Your task to perform on an android device: turn on the 24-hour format for clock Image 0: 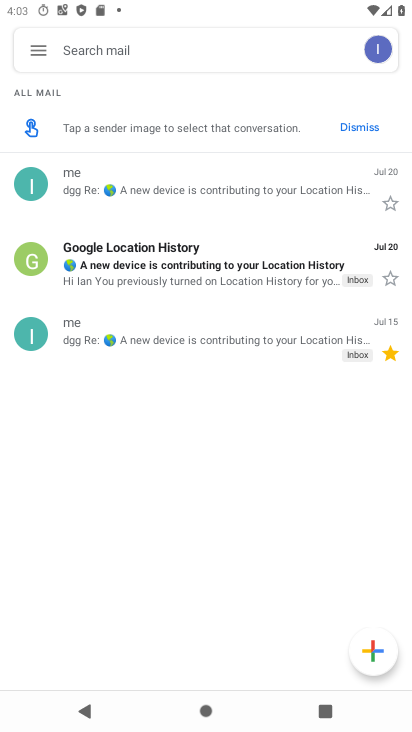
Step 0: press home button
Your task to perform on an android device: turn on the 24-hour format for clock Image 1: 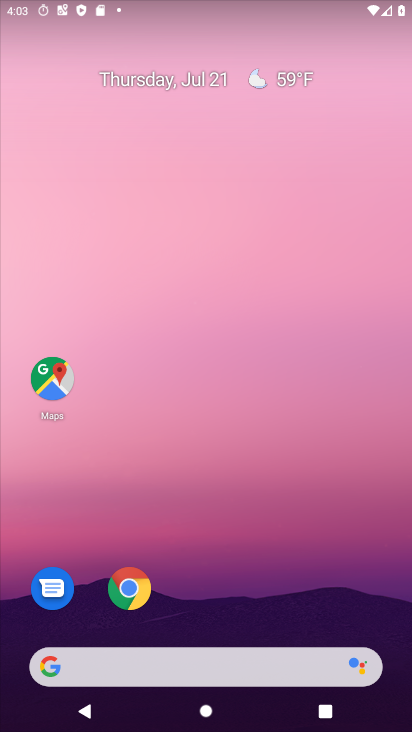
Step 1: drag from (330, 589) to (356, 30)
Your task to perform on an android device: turn on the 24-hour format for clock Image 2: 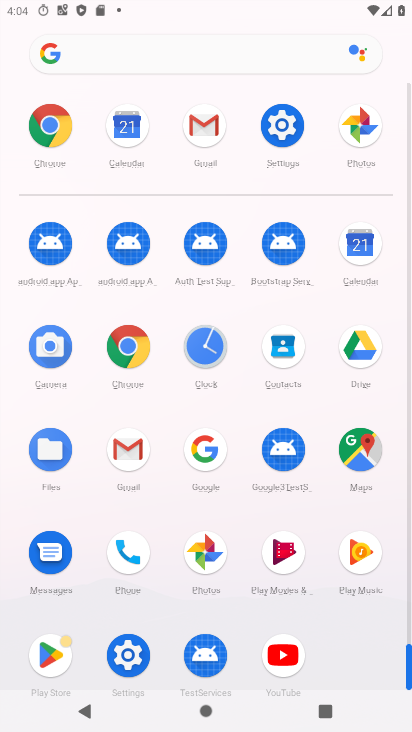
Step 2: click (129, 664)
Your task to perform on an android device: turn on the 24-hour format for clock Image 3: 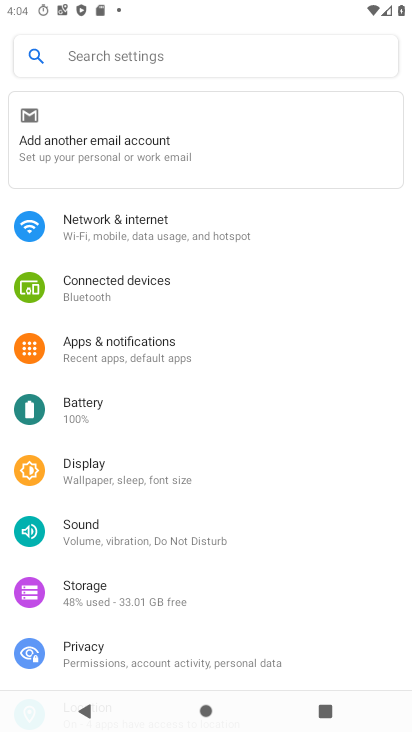
Step 3: drag from (114, 617) to (148, 350)
Your task to perform on an android device: turn on the 24-hour format for clock Image 4: 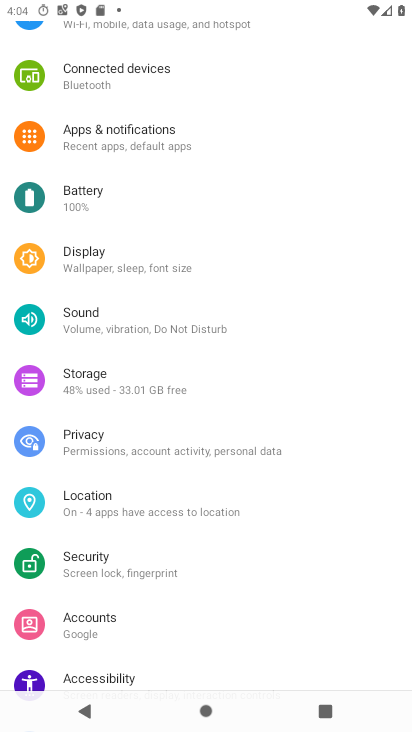
Step 4: drag from (124, 612) to (147, 167)
Your task to perform on an android device: turn on the 24-hour format for clock Image 5: 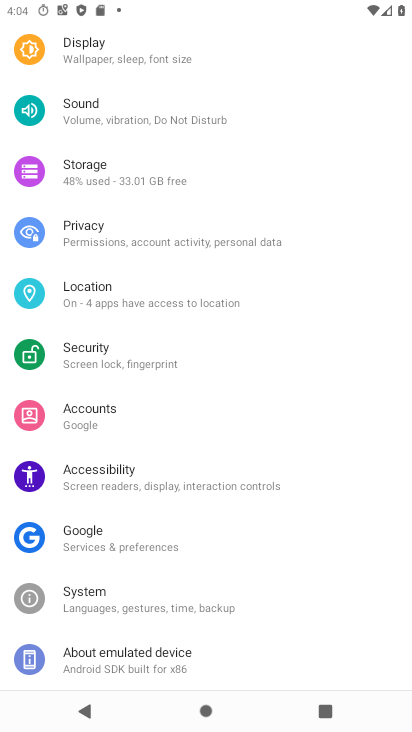
Step 5: click (113, 602)
Your task to perform on an android device: turn on the 24-hour format for clock Image 6: 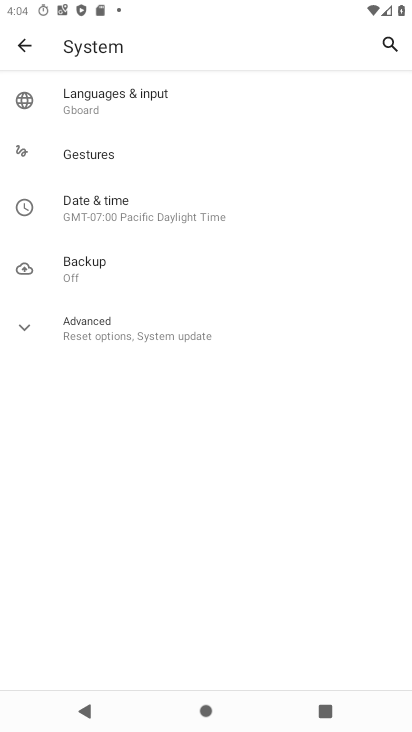
Step 6: click (120, 213)
Your task to perform on an android device: turn on the 24-hour format for clock Image 7: 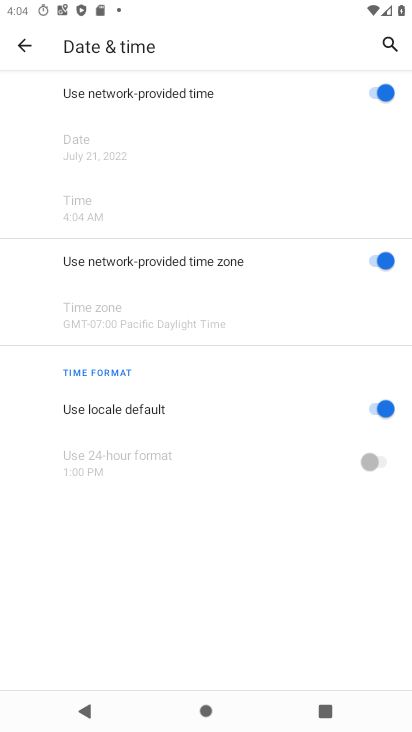
Step 7: click (334, 406)
Your task to perform on an android device: turn on the 24-hour format for clock Image 8: 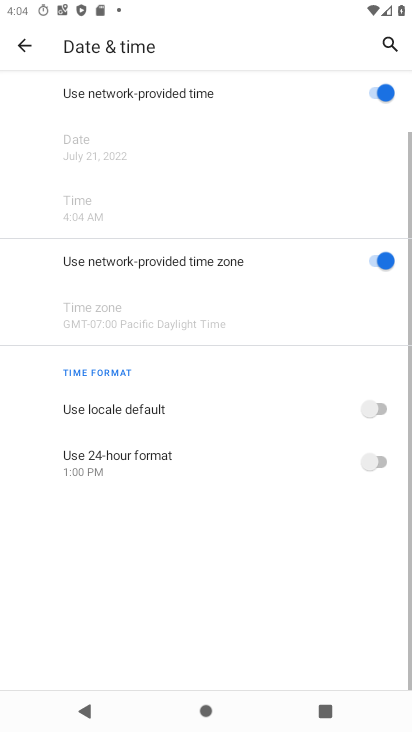
Step 8: click (395, 462)
Your task to perform on an android device: turn on the 24-hour format for clock Image 9: 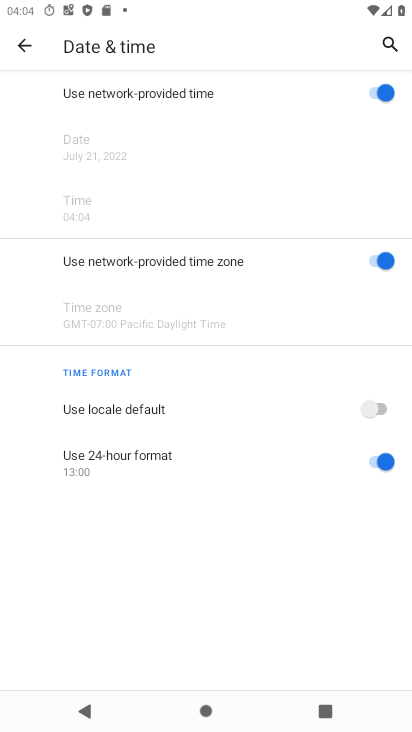
Step 9: task complete